Your task to perform on an android device: Add alienware aurora to the cart on newegg, then select checkout. Image 0: 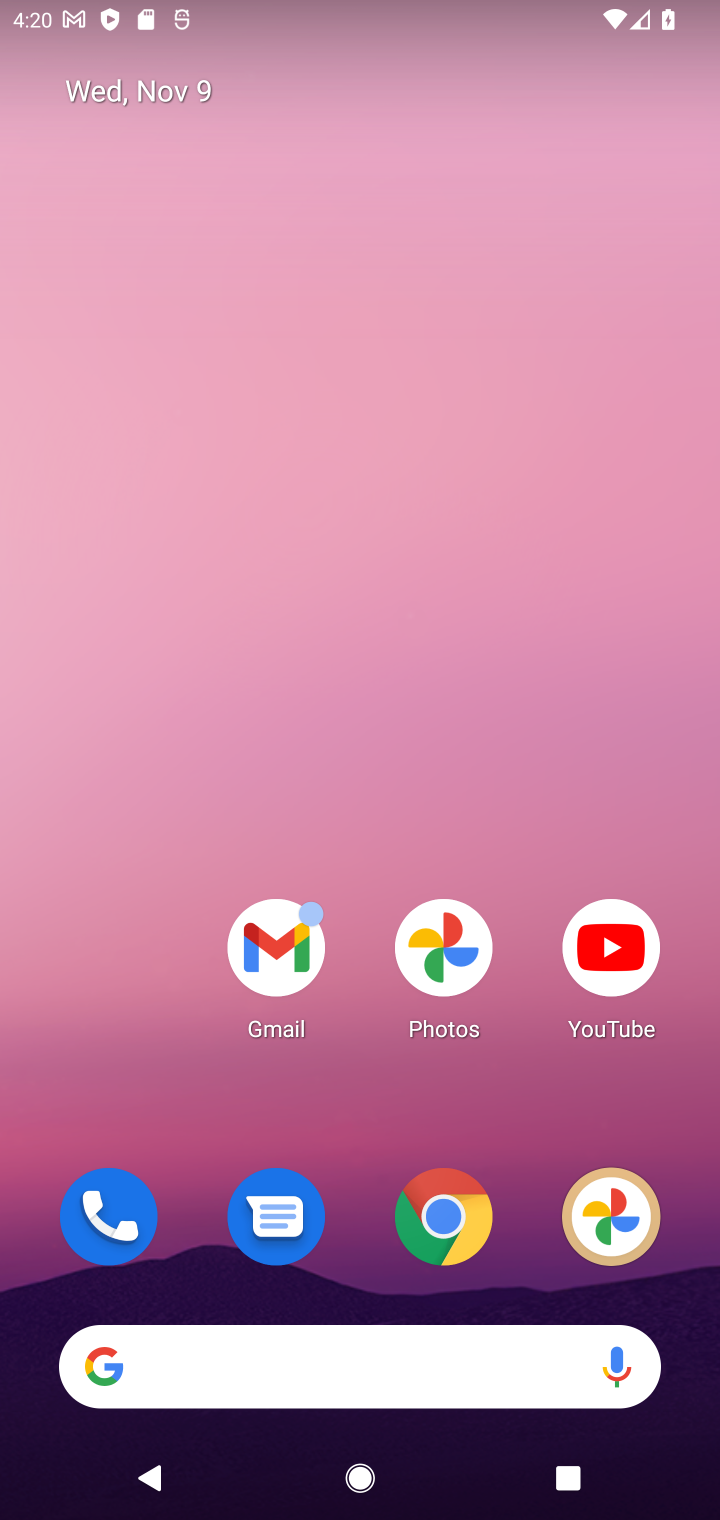
Step 0: drag from (342, 741) to (229, 0)
Your task to perform on an android device: Add alienware aurora to the cart on newegg, then select checkout. Image 1: 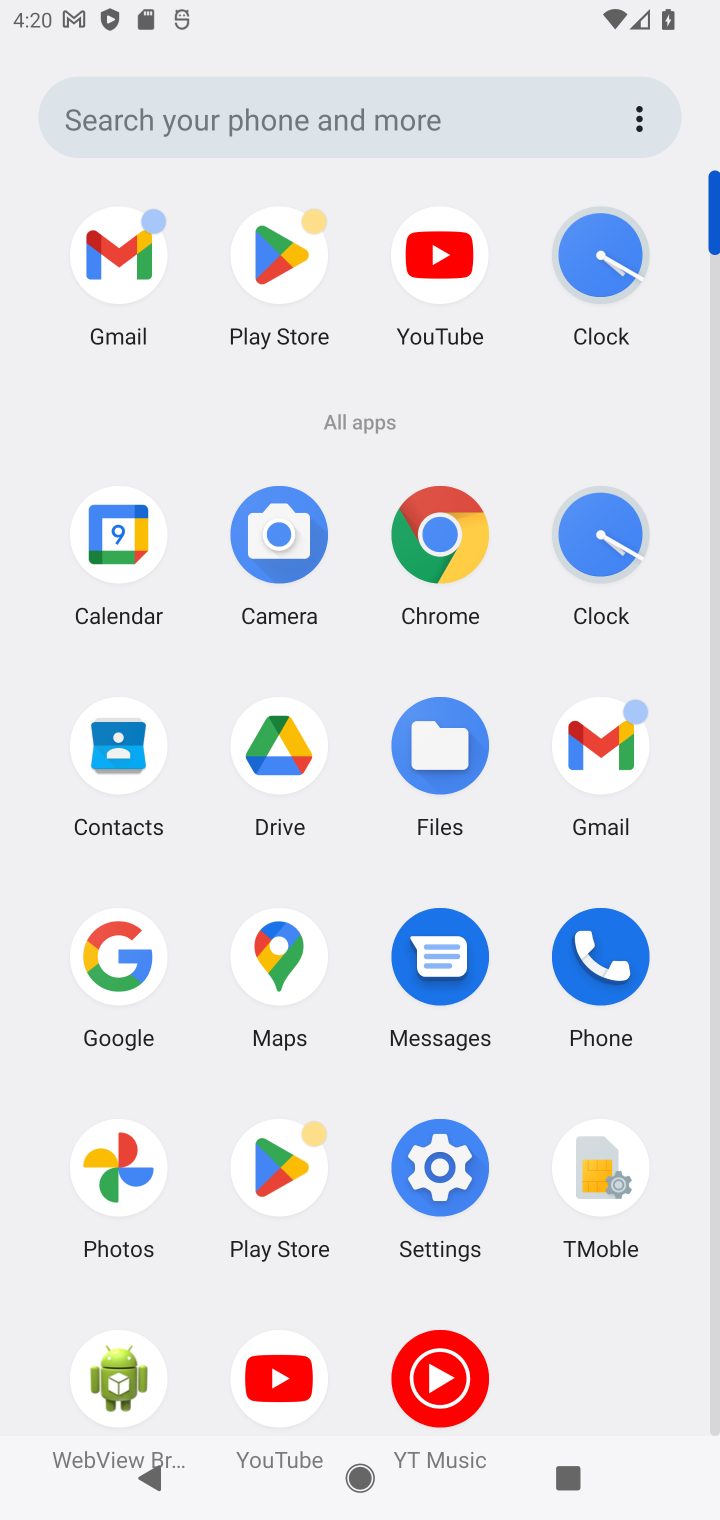
Step 1: click (439, 534)
Your task to perform on an android device: Add alienware aurora to the cart on newegg, then select checkout. Image 2: 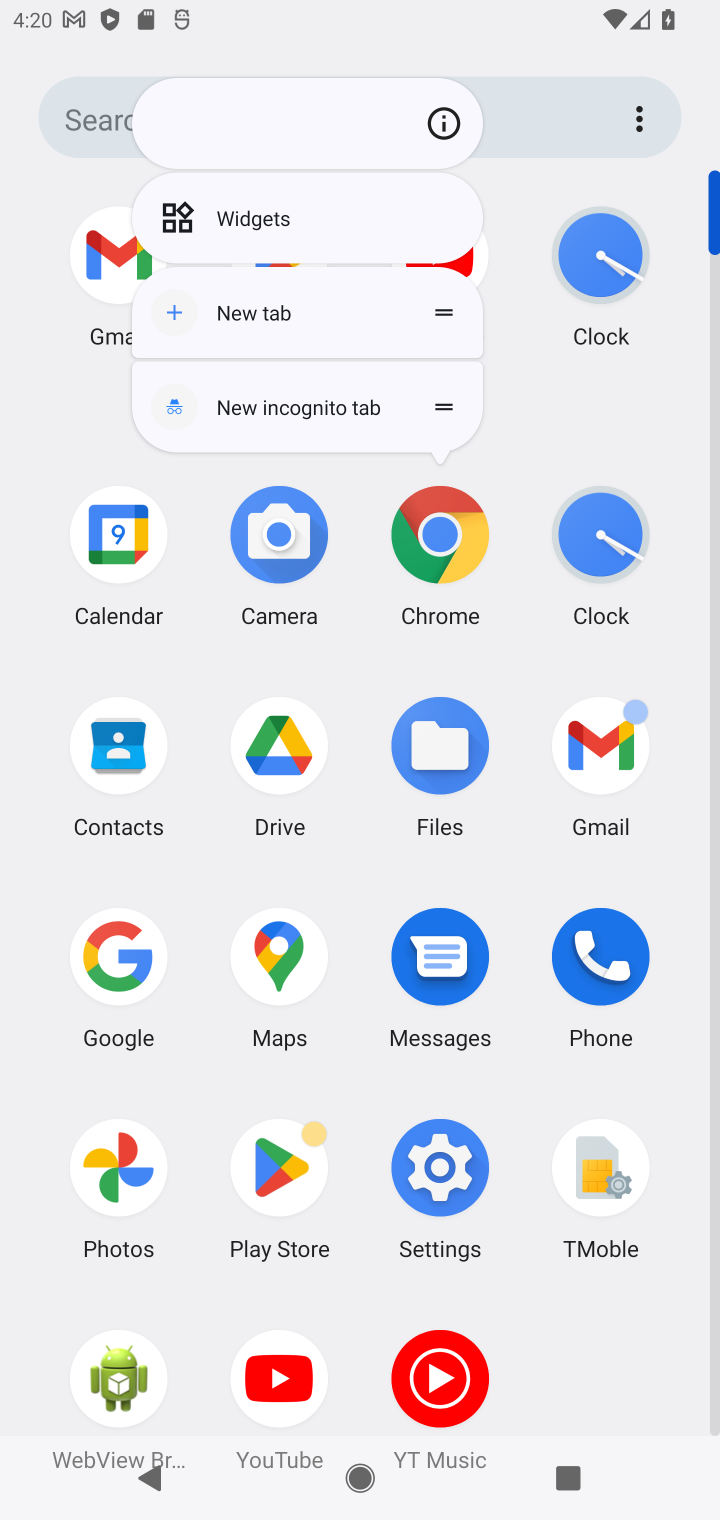
Step 2: click (459, 546)
Your task to perform on an android device: Add alienware aurora to the cart on newegg, then select checkout. Image 3: 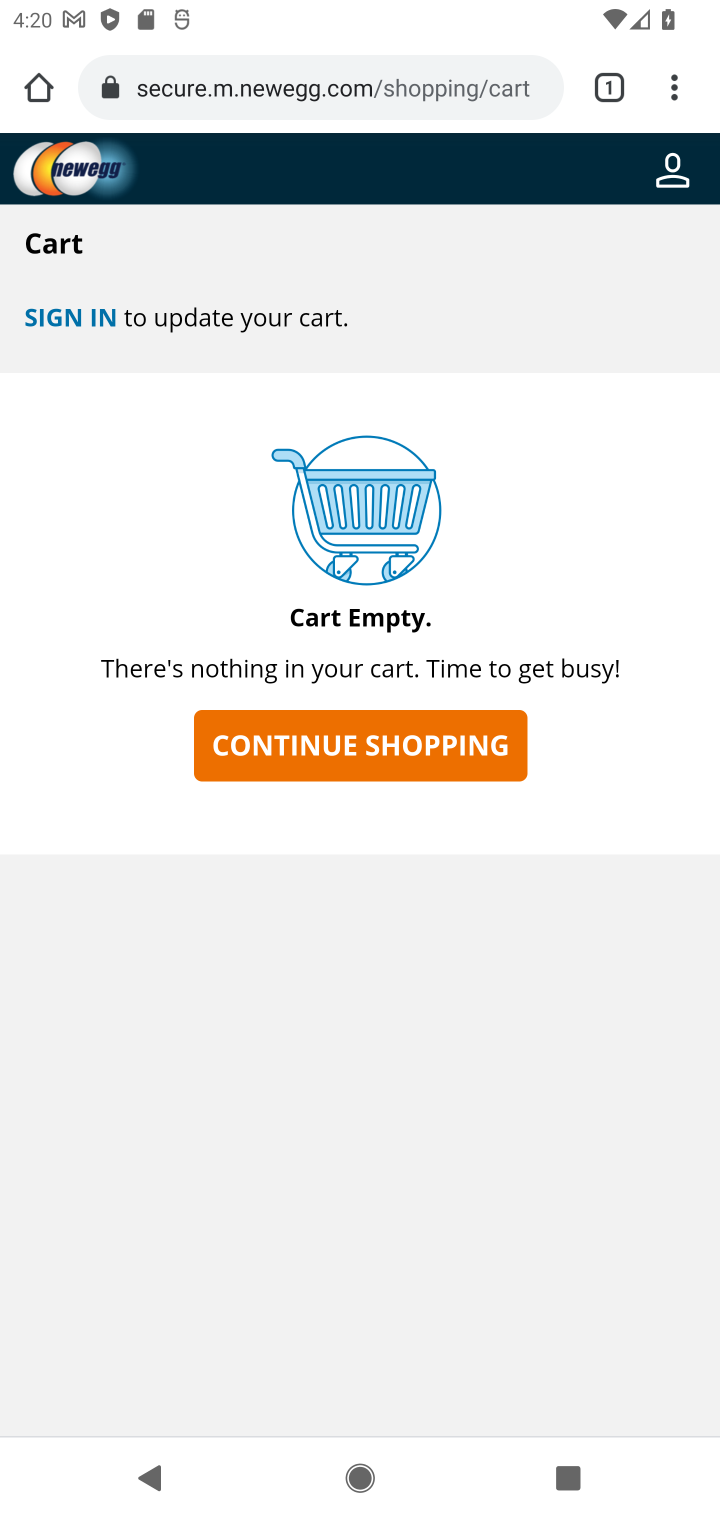
Step 3: click (409, 729)
Your task to perform on an android device: Add alienware aurora to the cart on newegg, then select checkout. Image 4: 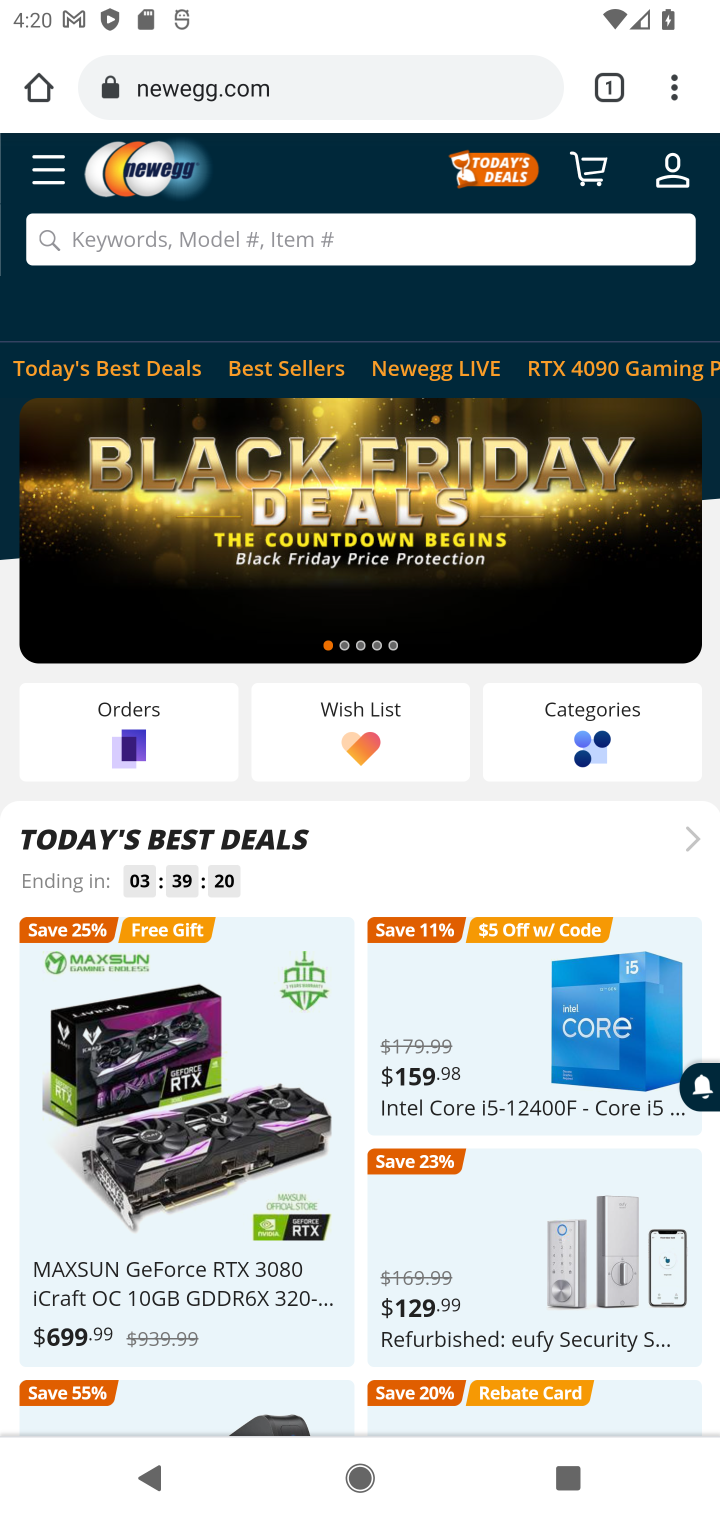
Step 4: click (345, 240)
Your task to perform on an android device: Add alienware aurora to the cart on newegg, then select checkout. Image 5: 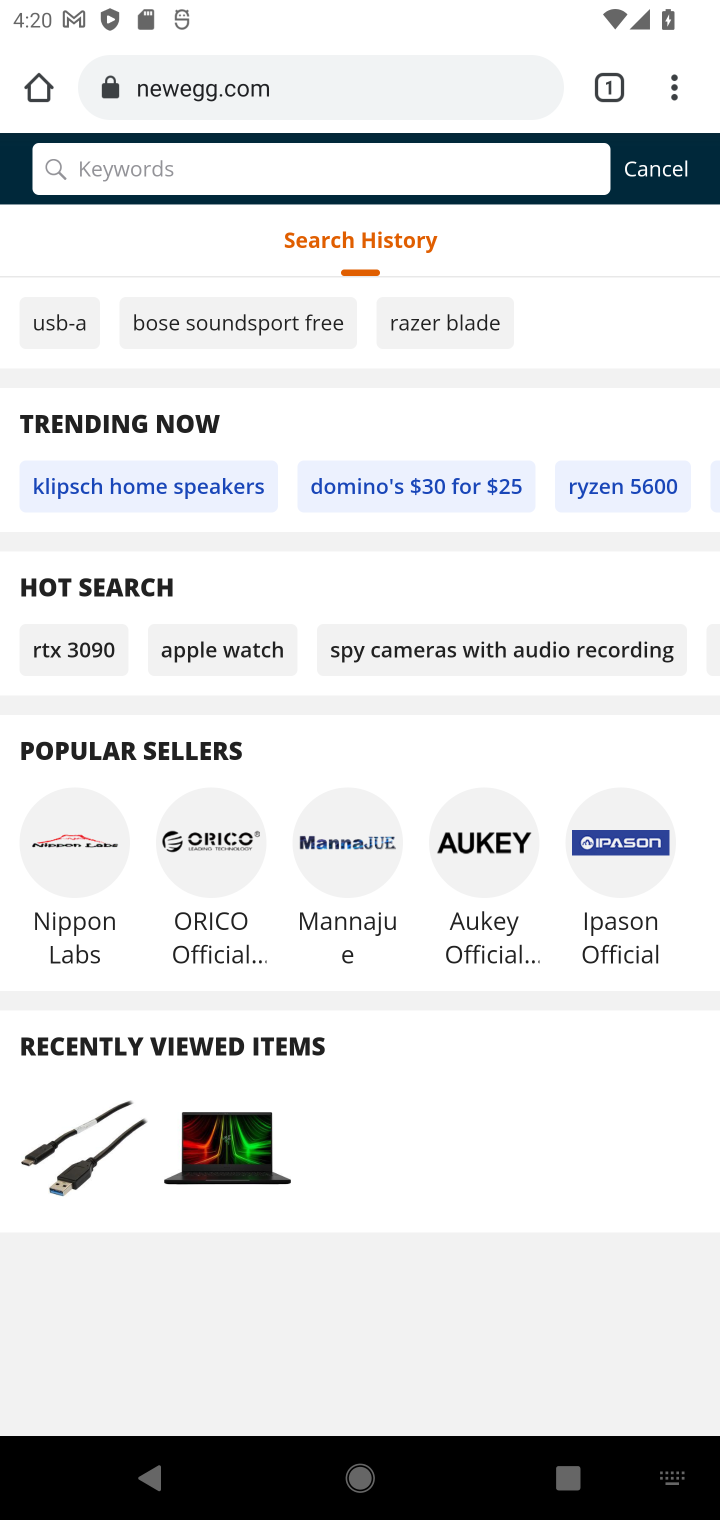
Step 5: type "alienware aurora"
Your task to perform on an android device: Add alienware aurora to the cart on newegg, then select checkout. Image 6: 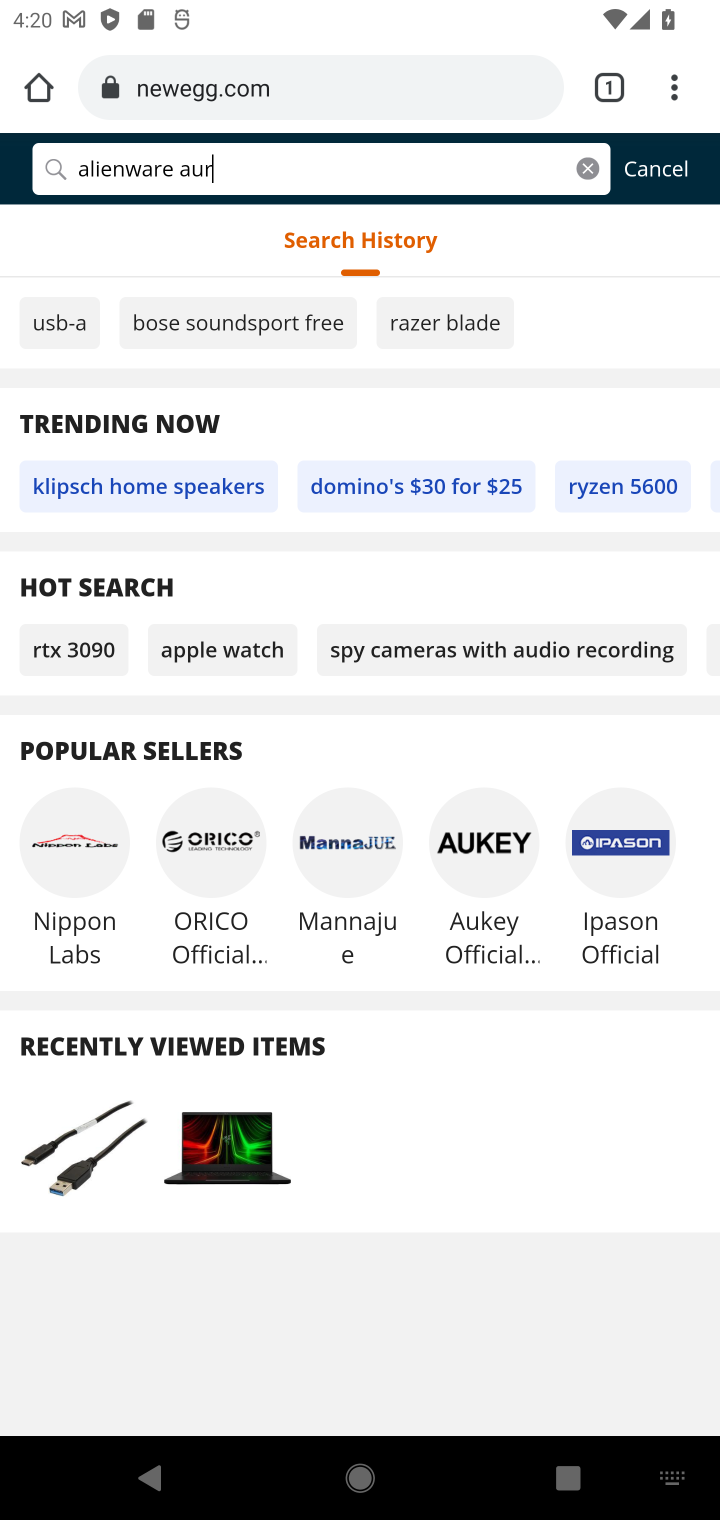
Step 6: press enter
Your task to perform on an android device: Add alienware aurora to the cart on newegg, then select checkout. Image 7: 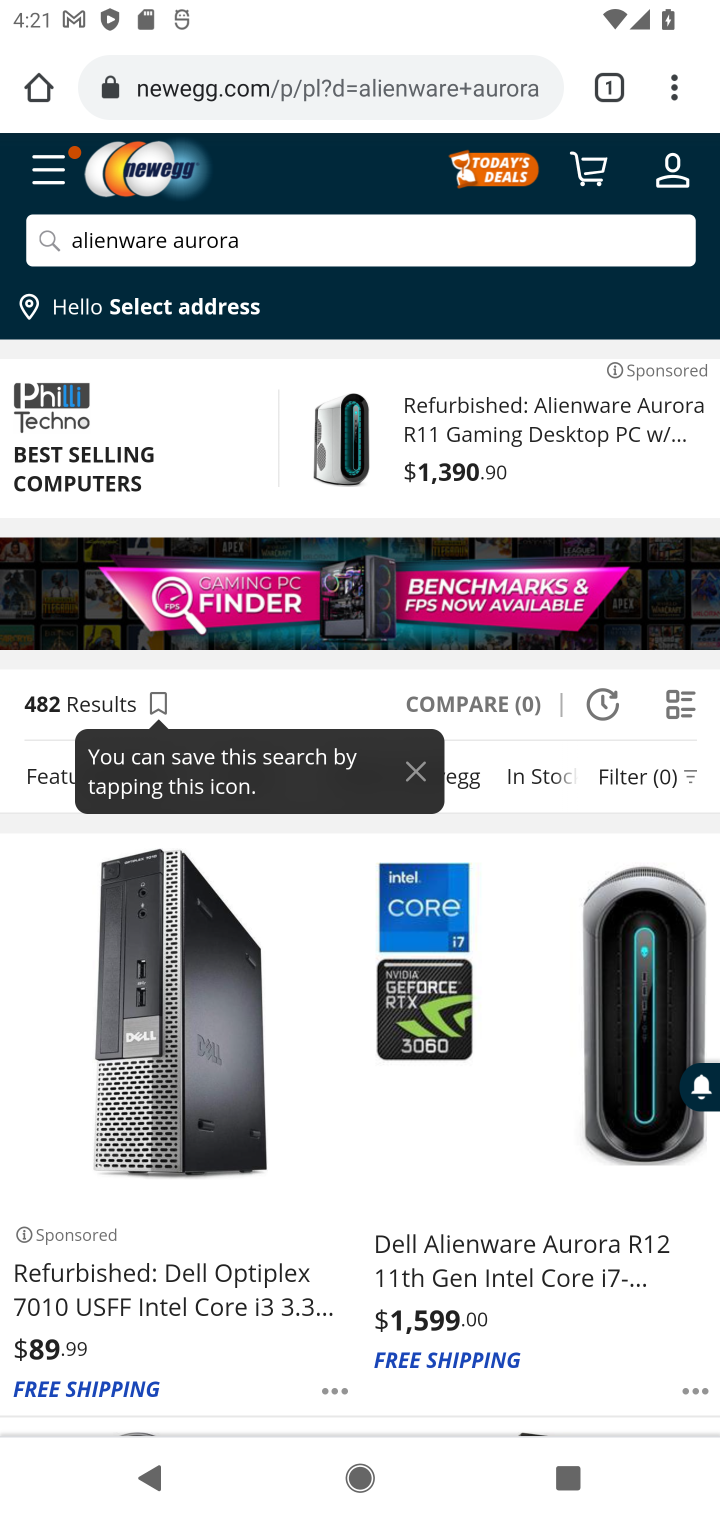
Step 7: click (535, 1253)
Your task to perform on an android device: Add alienware aurora to the cart on newegg, then select checkout. Image 8: 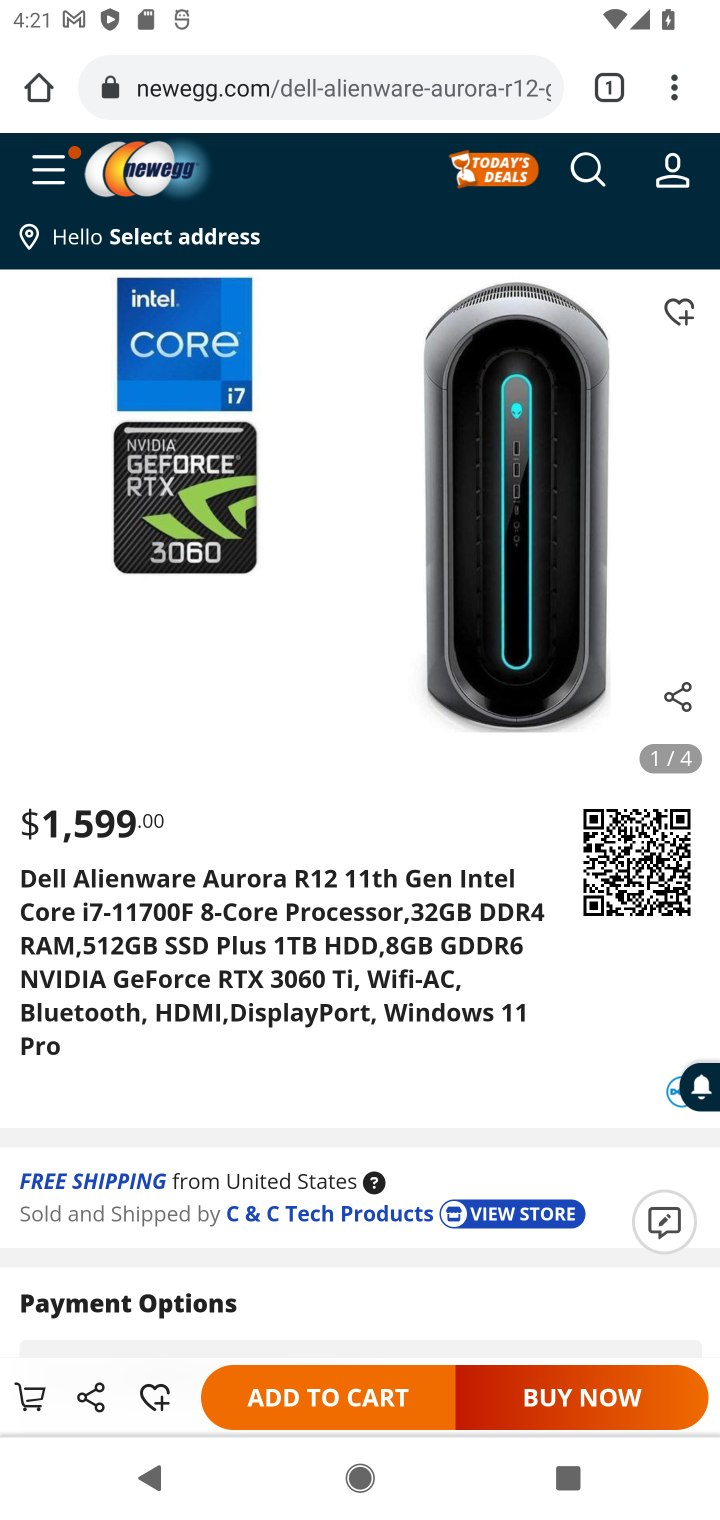
Step 8: click (327, 1404)
Your task to perform on an android device: Add alienware aurora to the cart on newegg, then select checkout. Image 9: 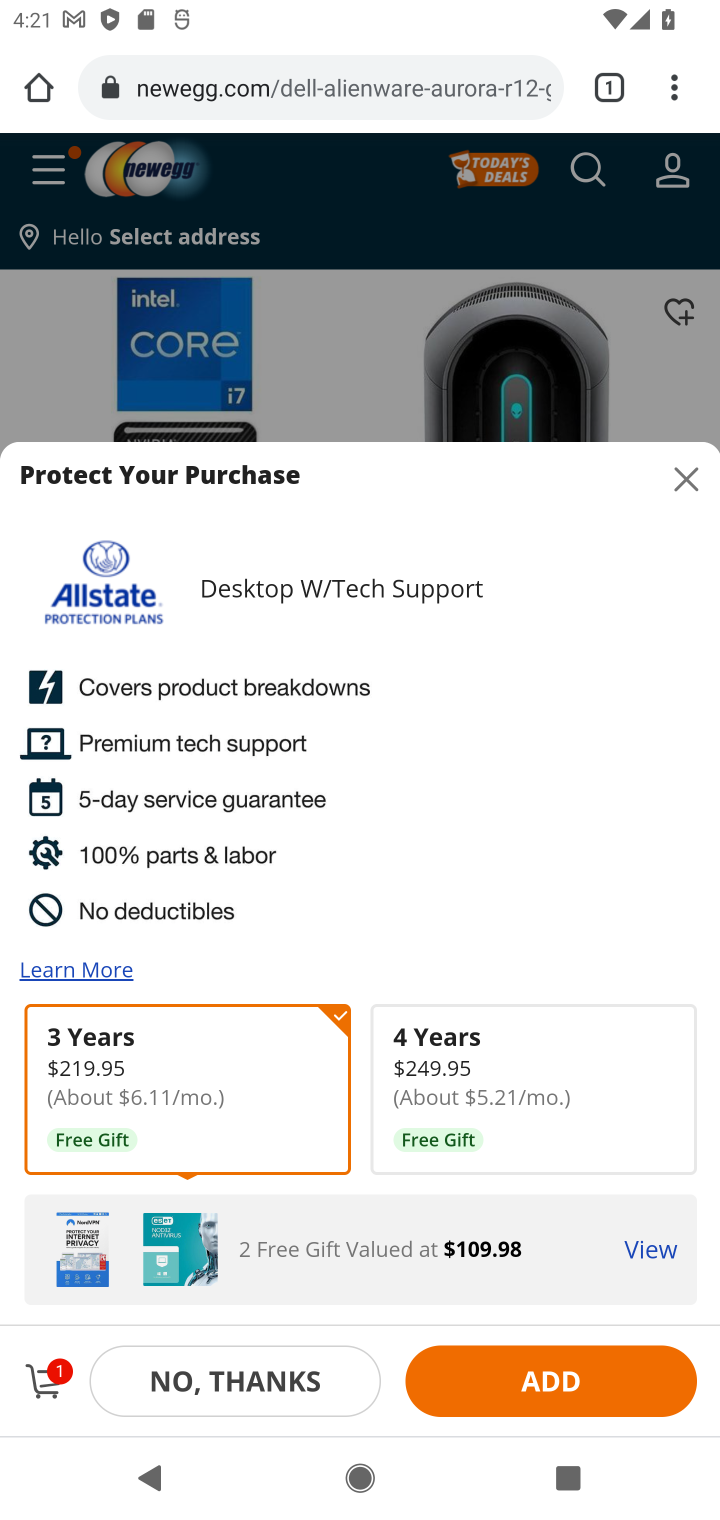
Step 9: click (55, 1381)
Your task to perform on an android device: Add alienware aurora to the cart on newegg, then select checkout. Image 10: 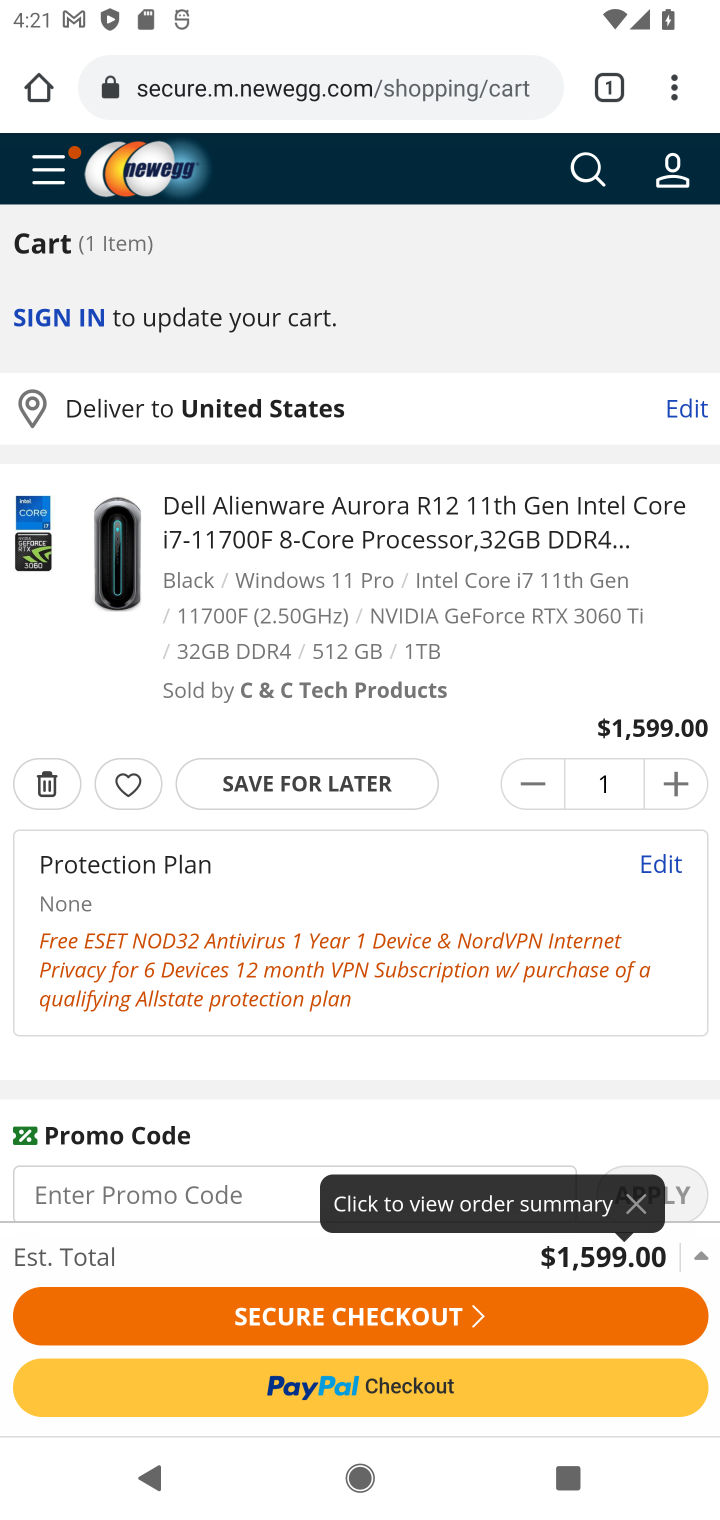
Step 10: click (379, 1316)
Your task to perform on an android device: Add alienware aurora to the cart on newegg, then select checkout. Image 11: 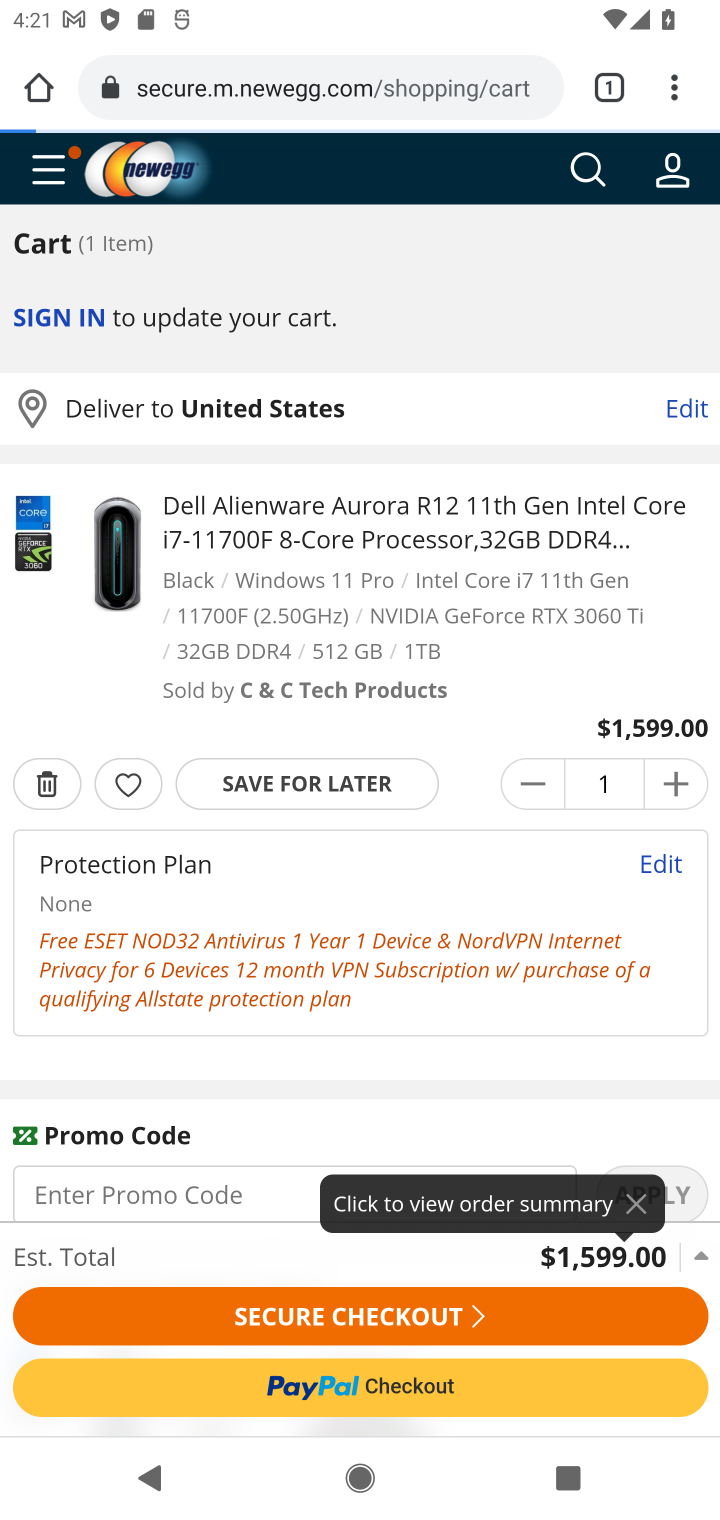
Step 11: click (379, 1316)
Your task to perform on an android device: Add alienware aurora to the cart on newegg, then select checkout. Image 12: 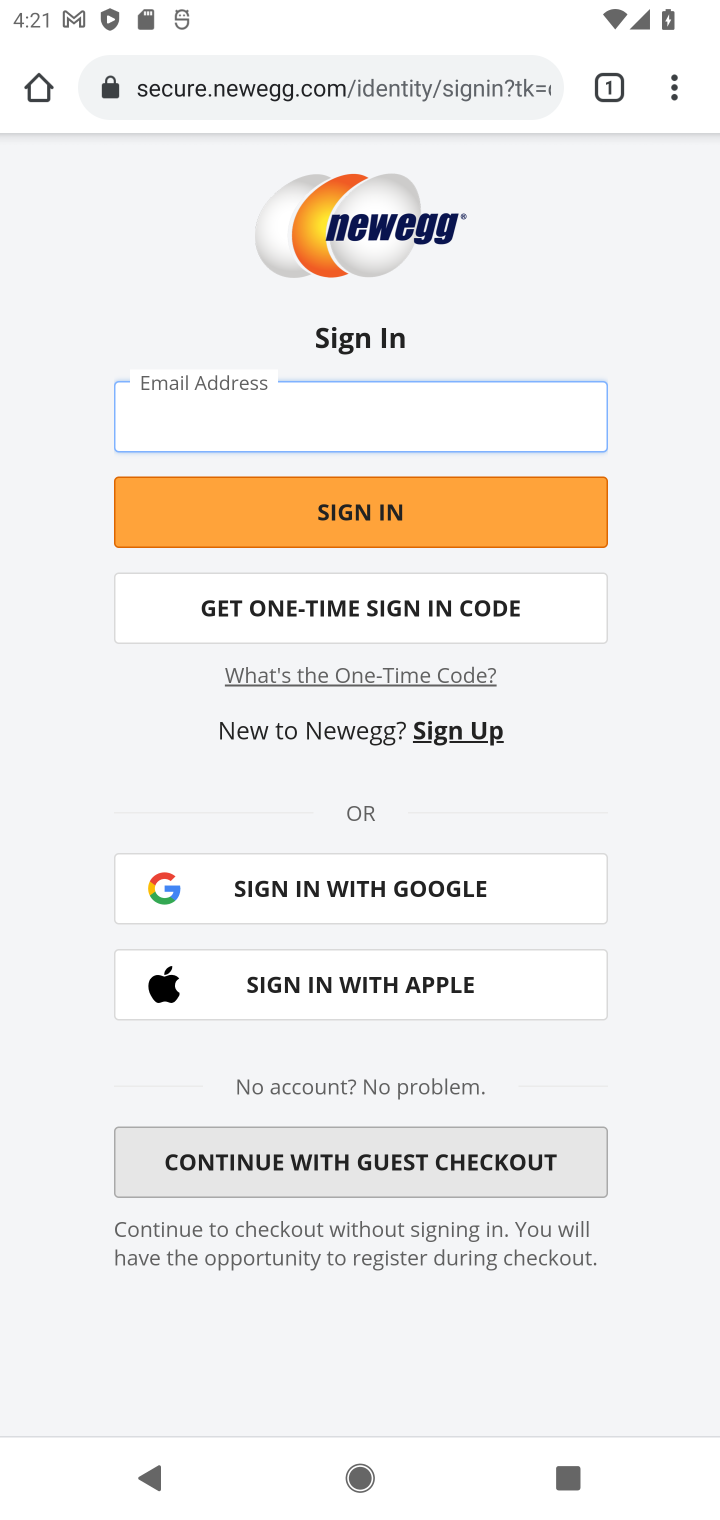
Step 12: task complete